Your task to perform on an android device: Search for Mexican restaurants on Maps Image 0: 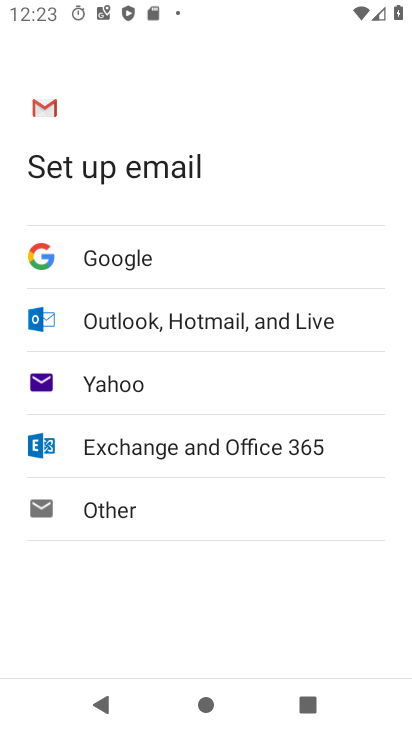
Step 0: press home button
Your task to perform on an android device: Search for Mexican restaurants on Maps Image 1: 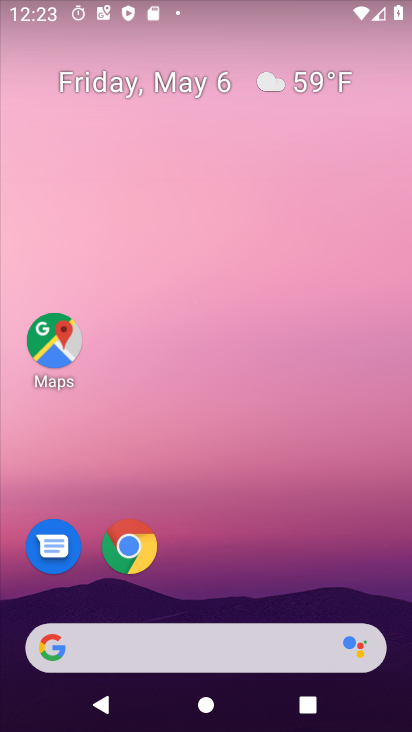
Step 1: click (66, 339)
Your task to perform on an android device: Search for Mexican restaurants on Maps Image 2: 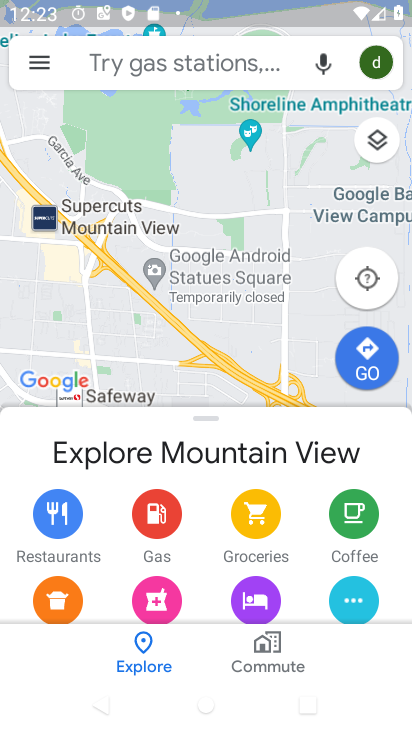
Step 2: click (122, 56)
Your task to perform on an android device: Search for Mexican restaurants on Maps Image 3: 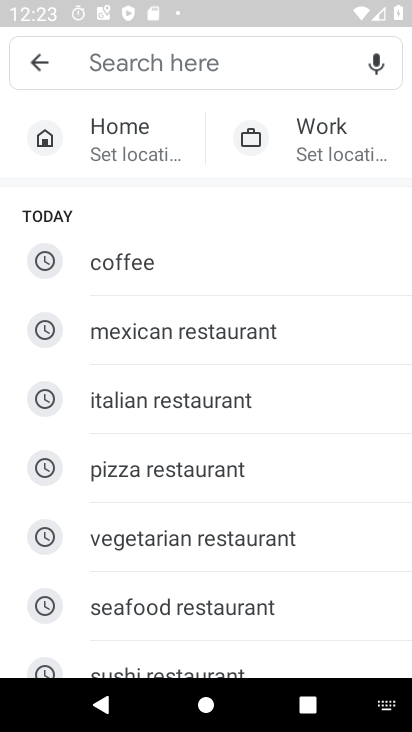
Step 3: click (184, 329)
Your task to perform on an android device: Search for Mexican restaurants on Maps Image 4: 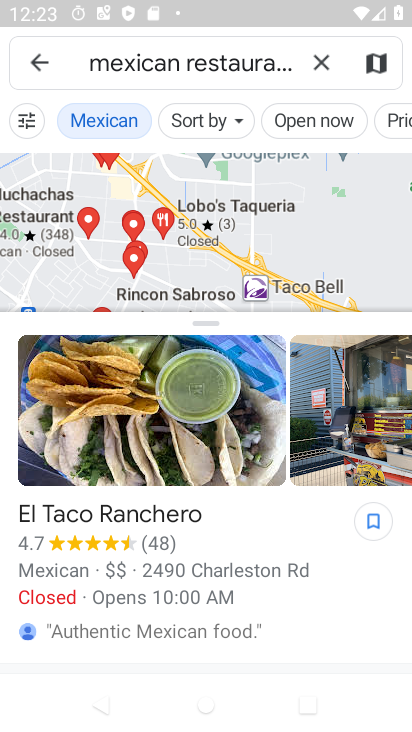
Step 4: task complete